Your task to perform on an android device: Add corsair k70 to the cart on bestbuy Image 0: 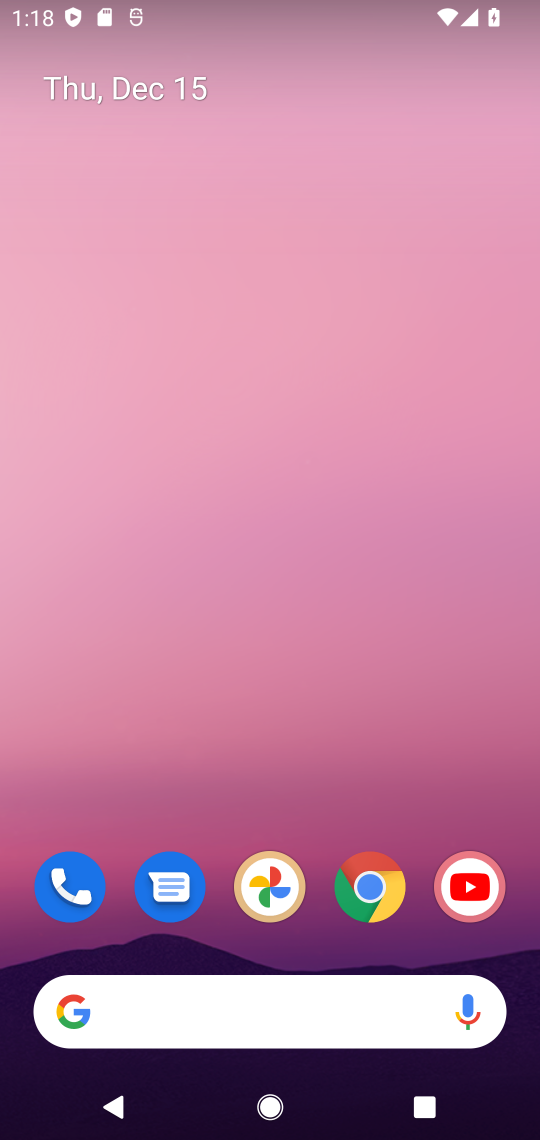
Step 0: click (366, 892)
Your task to perform on an android device: Add corsair k70 to the cart on bestbuy Image 1: 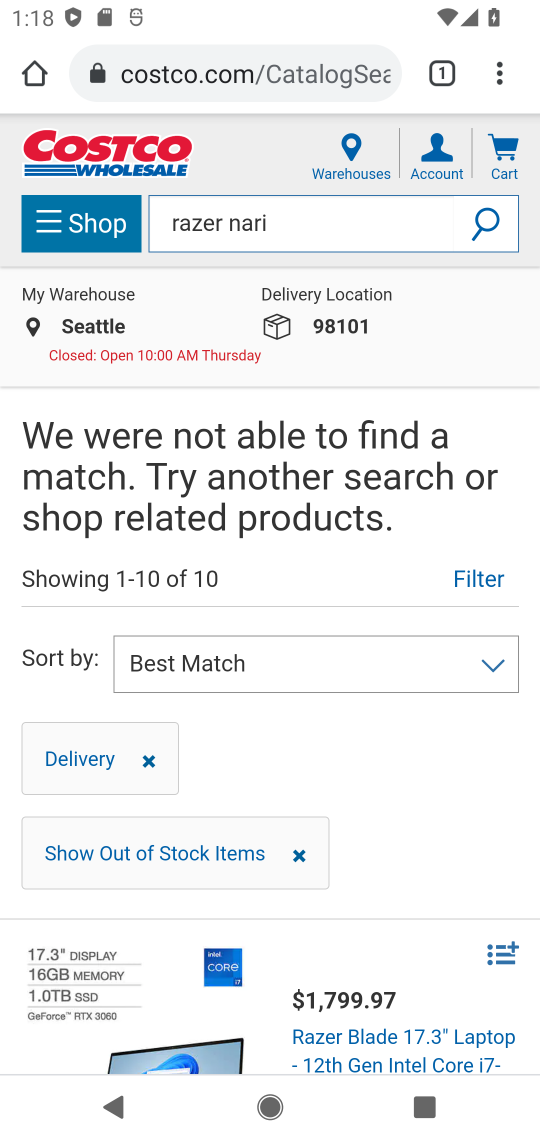
Step 1: click (165, 71)
Your task to perform on an android device: Add corsair k70 to the cart on bestbuy Image 2: 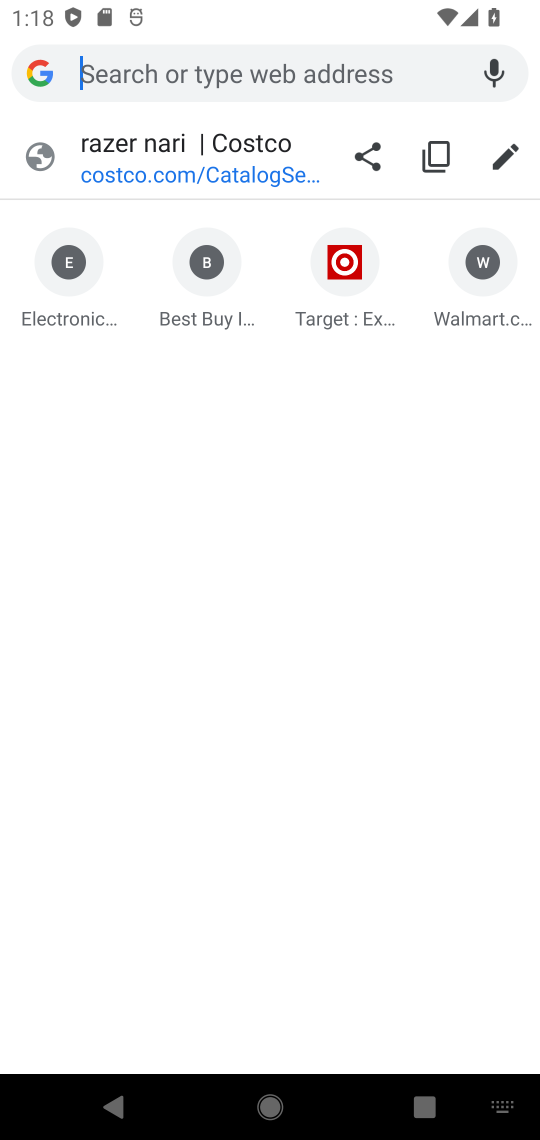
Step 2: click (200, 309)
Your task to perform on an android device: Add corsair k70 to the cart on bestbuy Image 3: 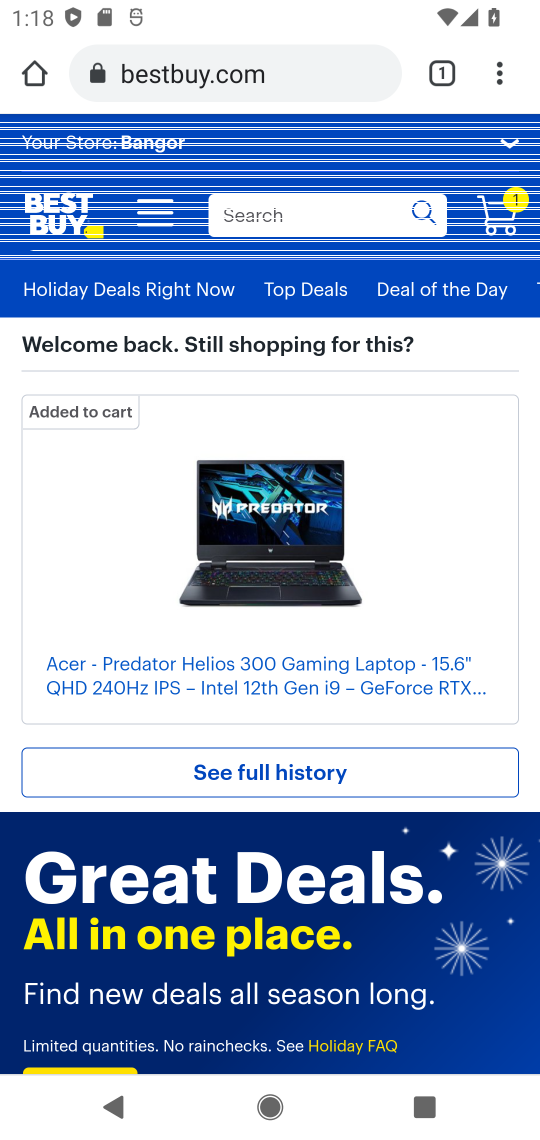
Step 3: click (250, 225)
Your task to perform on an android device: Add corsair k70 to the cart on bestbuy Image 4: 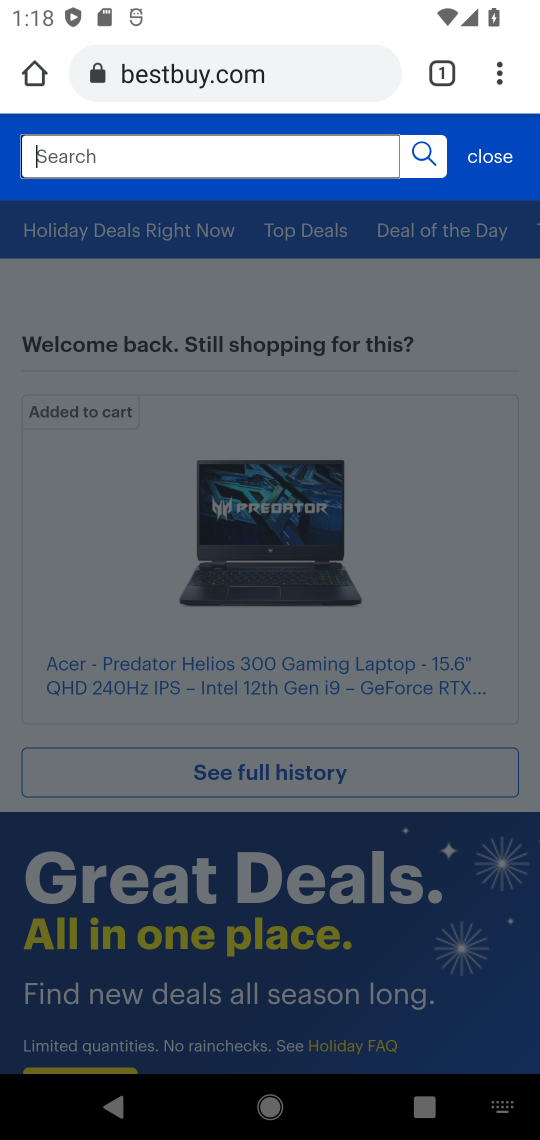
Step 4: type "corsair k70"
Your task to perform on an android device: Add corsair k70 to the cart on bestbuy Image 5: 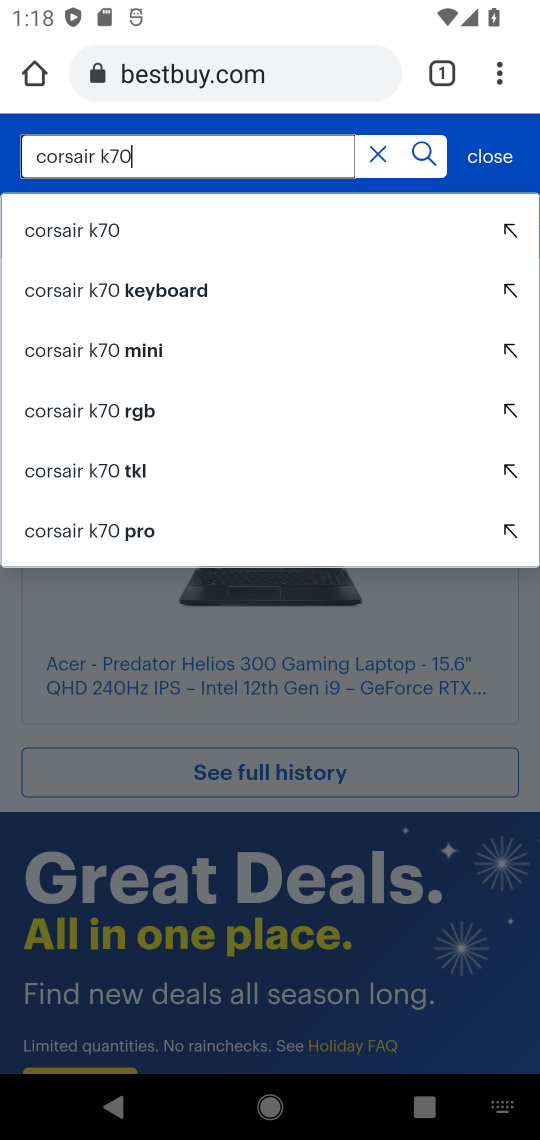
Step 5: click (73, 236)
Your task to perform on an android device: Add corsair k70 to the cart on bestbuy Image 6: 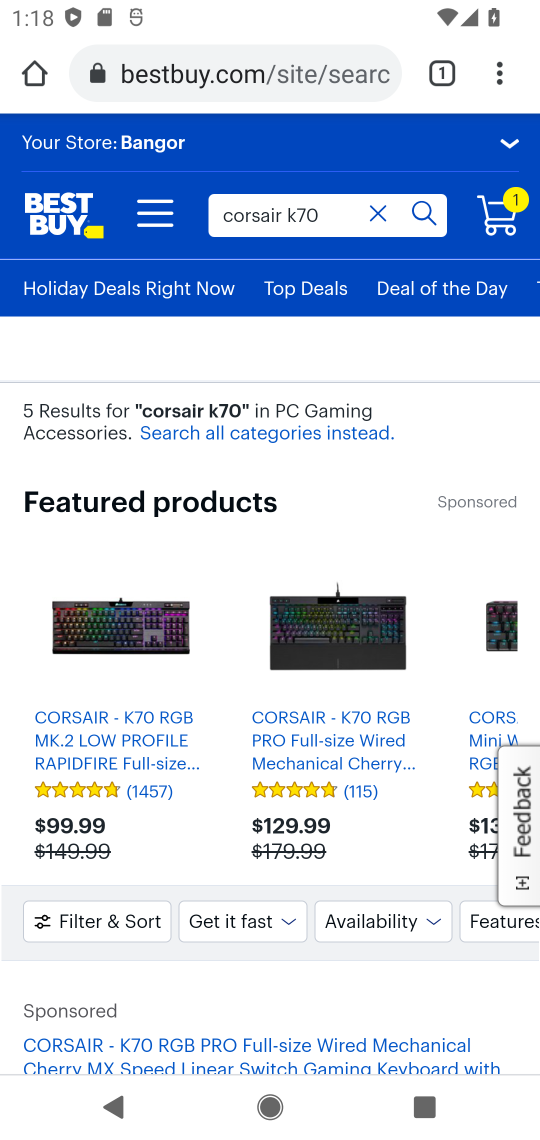
Step 6: drag from (202, 733) to (186, 350)
Your task to perform on an android device: Add corsair k70 to the cart on bestbuy Image 7: 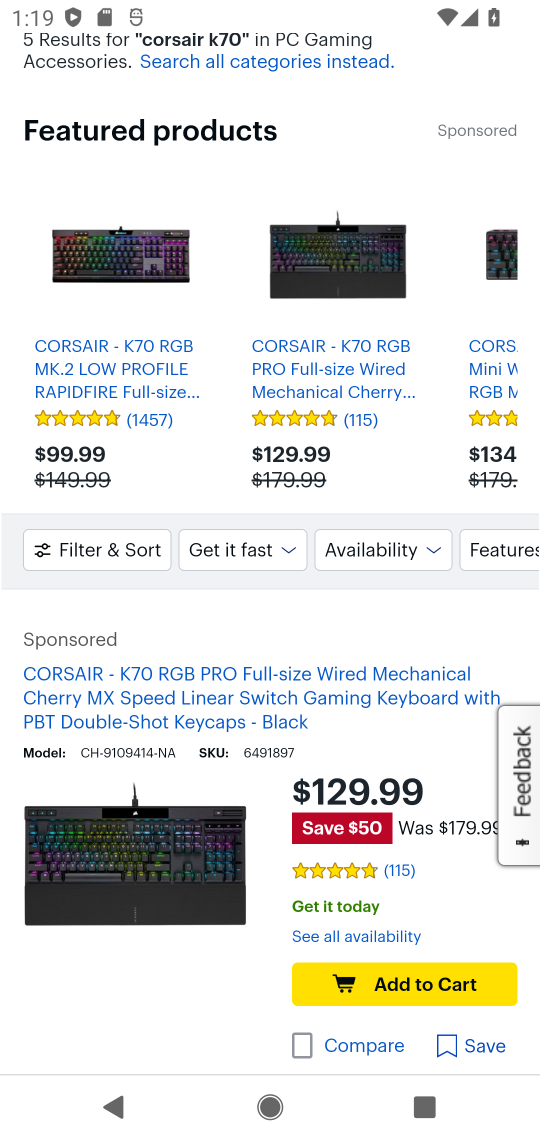
Step 7: click (384, 978)
Your task to perform on an android device: Add corsair k70 to the cart on bestbuy Image 8: 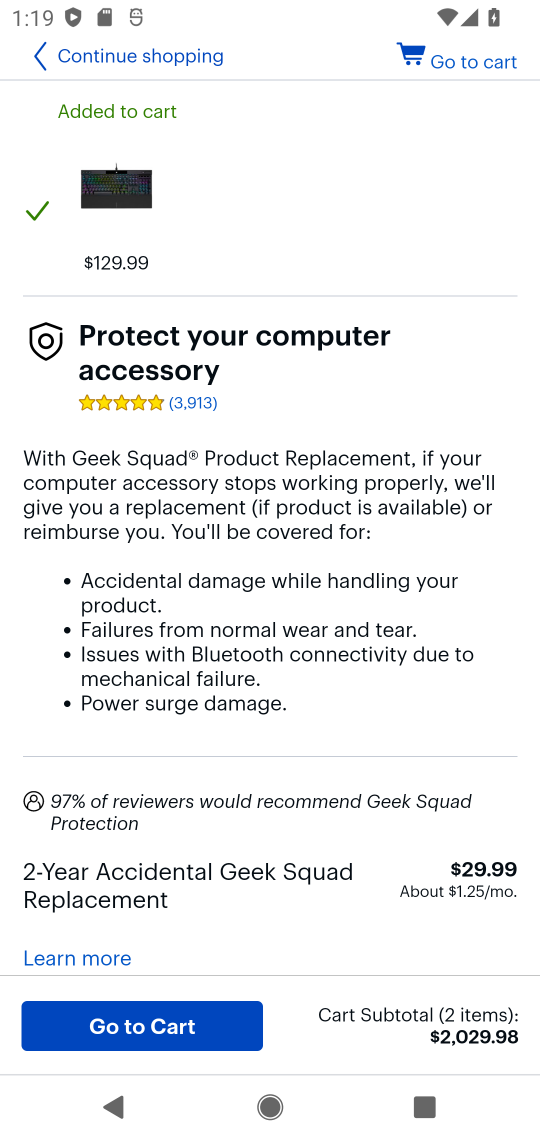
Step 8: task complete